Your task to perform on an android device: turn off priority inbox in the gmail app Image 0: 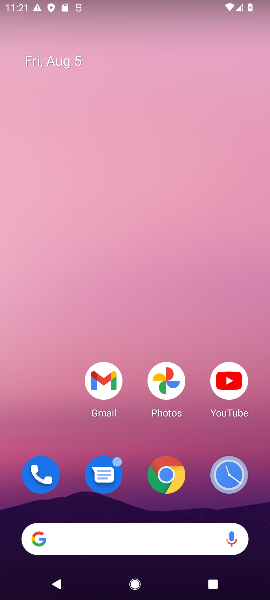
Step 0: click (101, 386)
Your task to perform on an android device: turn off priority inbox in the gmail app Image 1: 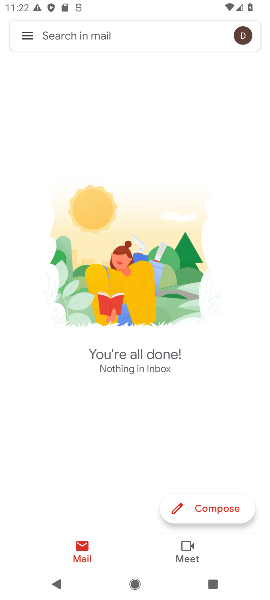
Step 1: click (20, 34)
Your task to perform on an android device: turn off priority inbox in the gmail app Image 2: 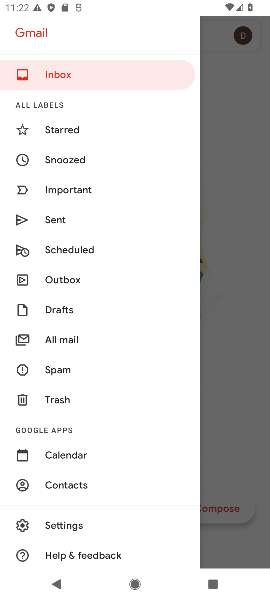
Step 2: click (64, 526)
Your task to perform on an android device: turn off priority inbox in the gmail app Image 3: 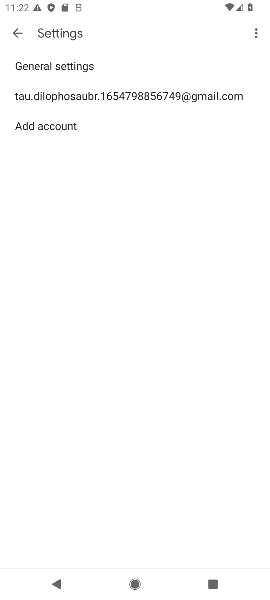
Step 3: click (53, 92)
Your task to perform on an android device: turn off priority inbox in the gmail app Image 4: 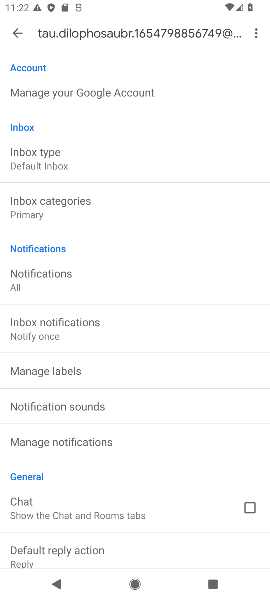
Step 4: click (53, 163)
Your task to perform on an android device: turn off priority inbox in the gmail app Image 5: 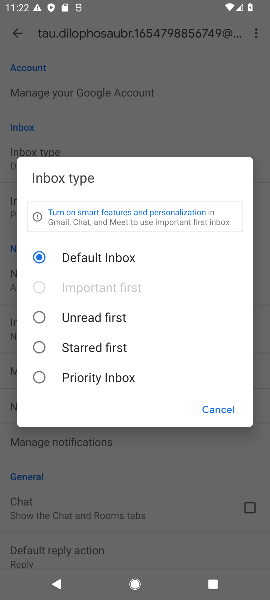
Step 5: click (58, 348)
Your task to perform on an android device: turn off priority inbox in the gmail app Image 6: 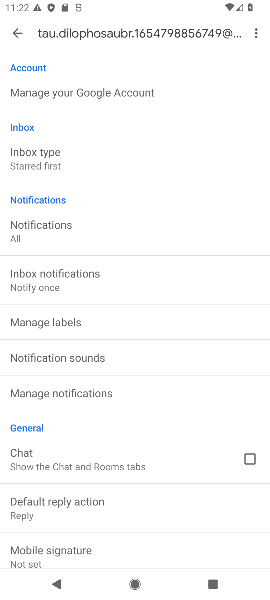
Step 6: task complete